Your task to perform on an android device: Open the Play Movies app and select the watchlist tab. Image 0: 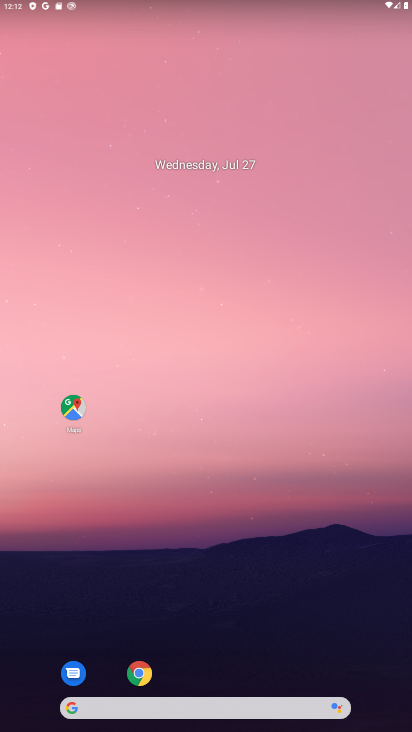
Step 0: drag from (280, 679) to (235, 5)
Your task to perform on an android device: Open the Play Movies app and select the watchlist tab. Image 1: 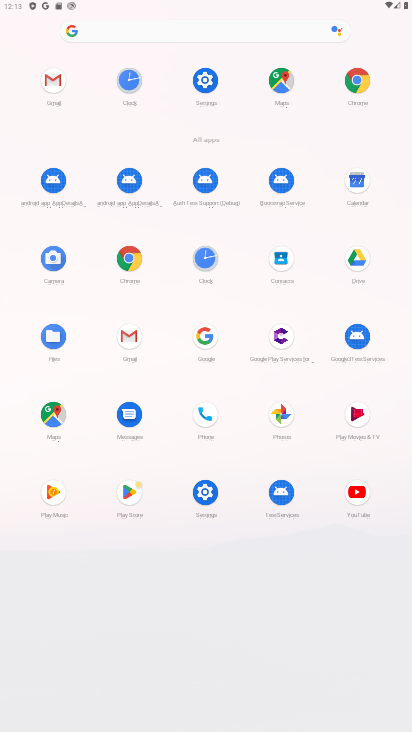
Step 1: click (350, 416)
Your task to perform on an android device: Open the Play Movies app and select the watchlist tab. Image 2: 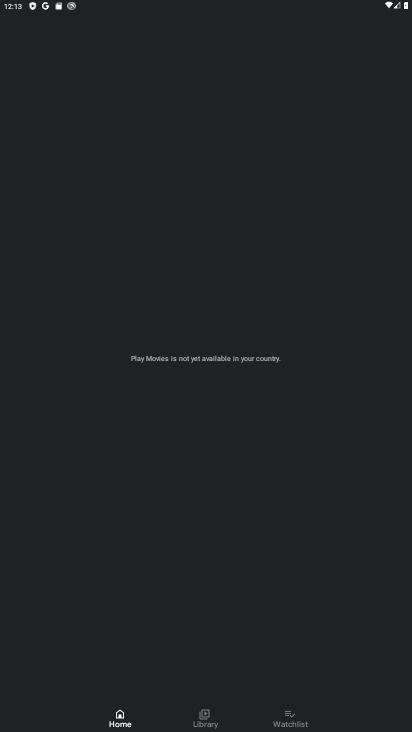
Step 2: click (294, 715)
Your task to perform on an android device: Open the Play Movies app and select the watchlist tab. Image 3: 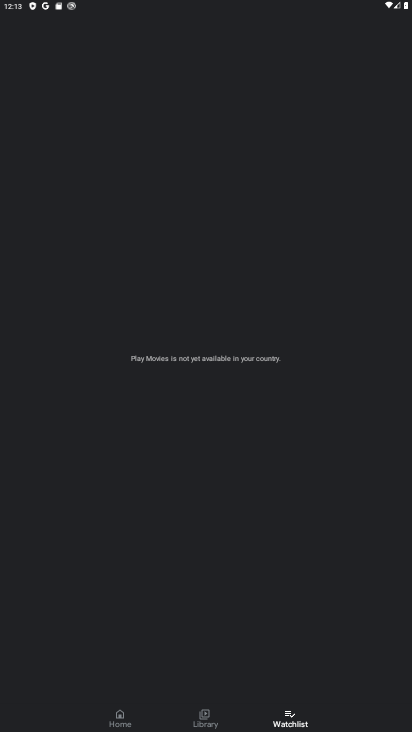
Step 3: task complete